Your task to perform on an android device: Turn on the flashlight Image 0: 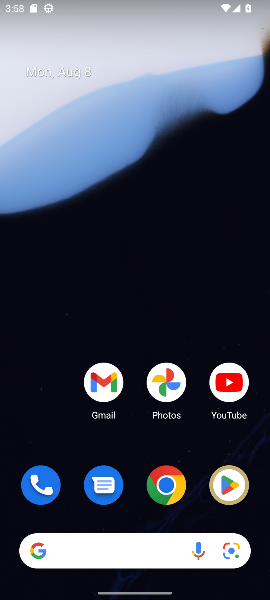
Step 0: drag from (210, 574) to (16, 64)
Your task to perform on an android device: Turn on the flashlight Image 1: 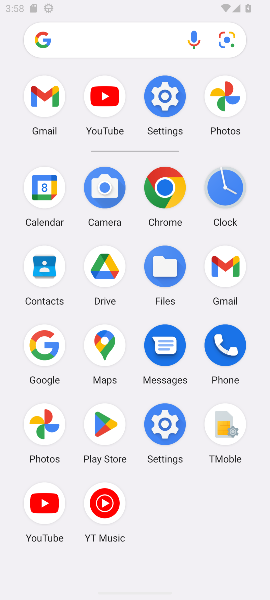
Step 1: drag from (122, 476) to (95, 139)
Your task to perform on an android device: Turn on the flashlight Image 2: 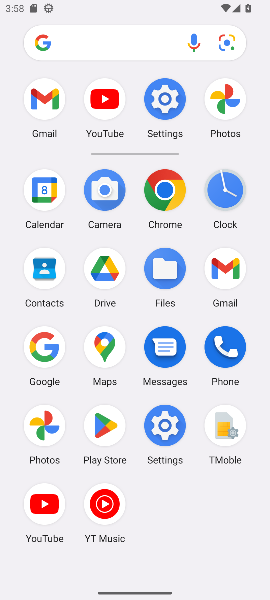
Step 2: drag from (130, 61) to (161, 590)
Your task to perform on an android device: Turn on the flashlight Image 3: 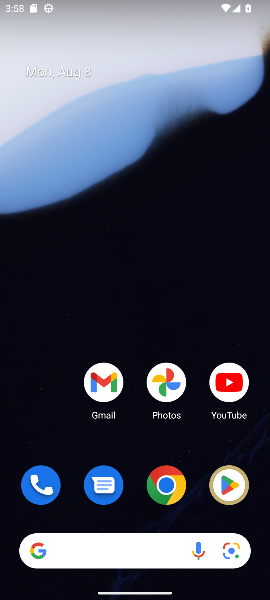
Step 3: drag from (135, 15) to (177, 453)
Your task to perform on an android device: Turn on the flashlight Image 4: 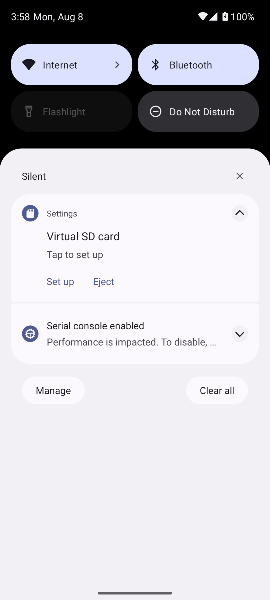
Step 4: click (77, 107)
Your task to perform on an android device: Turn on the flashlight Image 5: 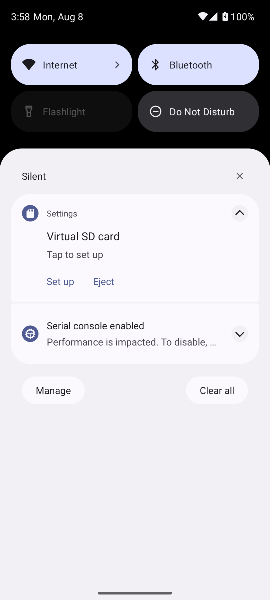
Step 5: click (59, 117)
Your task to perform on an android device: Turn on the flashlight Image 6: 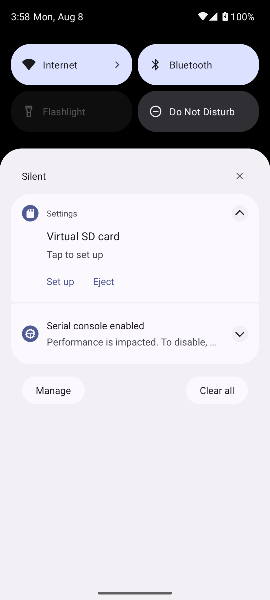
Step 6: click (59, 117)
Your task to perform on an android device: Turn on the flashlight Image 7: 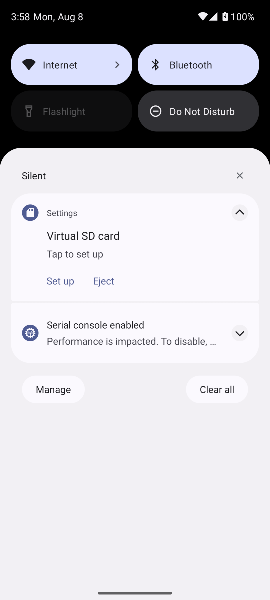
Step 7: click (62, 115)
Your task to perform on an android device: Turn on the flashlight Image 8: 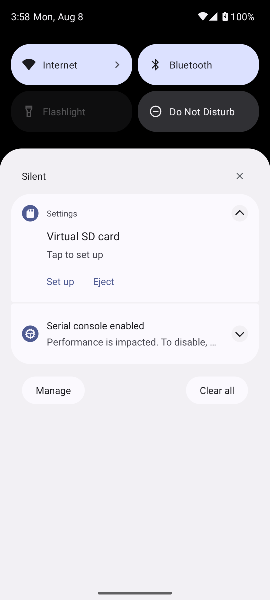
Step 8: click (62, 115)
Your task to perform on an android device: Turn on the flashlight Image 9: 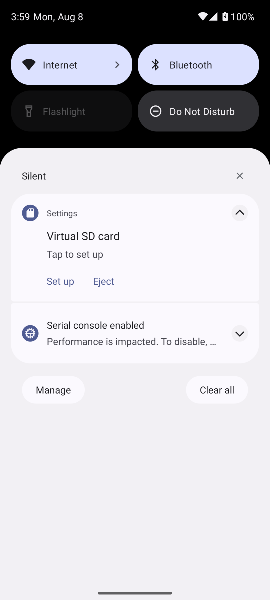
Step 9: click (64, 119)
Your task to perform on an android device: Turn on the flashlight Image 10: 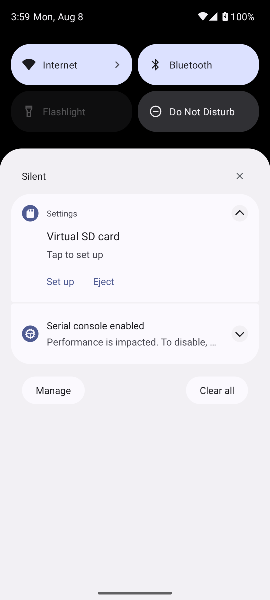
Step 10: task complete